Your task to perform on an android device: star an email in the gmail app Image 0: 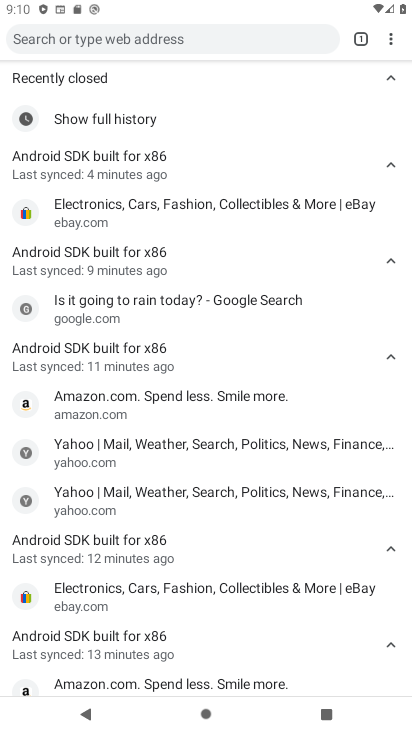
Step 0: press home button
Your task to perform on an android device: star an email in the gmail app Image 1: 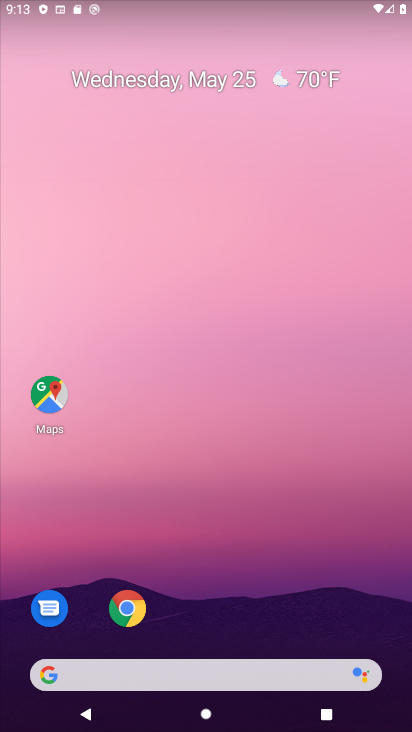
Step 1: drag from (273, 316) to (219, 30)
Your task to perform on an android device: star an email in the gmail app Image 2: 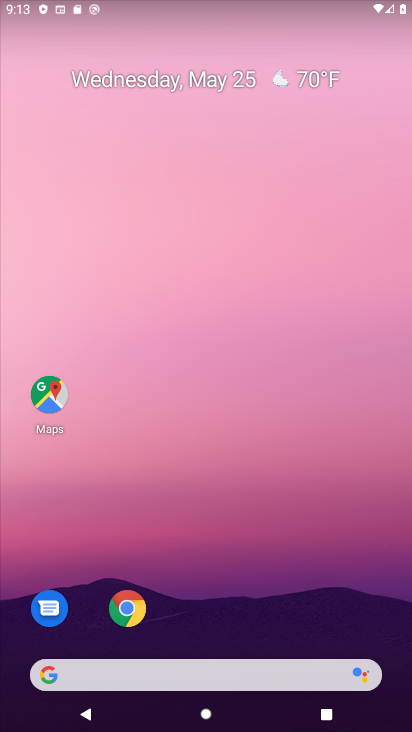
Step 2: drag from (303, 588) to (175, 1)
Your task to perform on an android device: star an email in the gmail app Image 3: 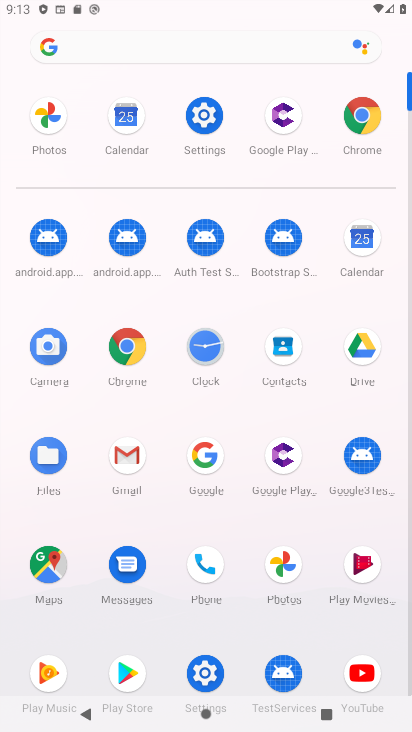
Step 3: click (124, 485)
Your task to perform on an android device: star an email in the gmail app Image 4: 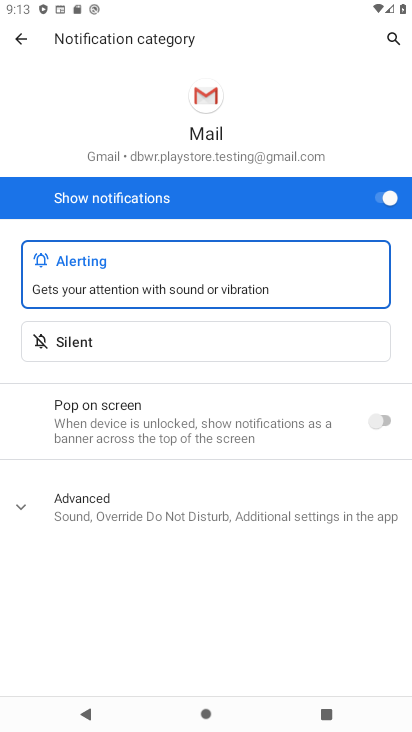
Step 4: drag from (267, 602) to (267, 237)
Your task to perform on an android device: star an email in the gmail app Image 5: 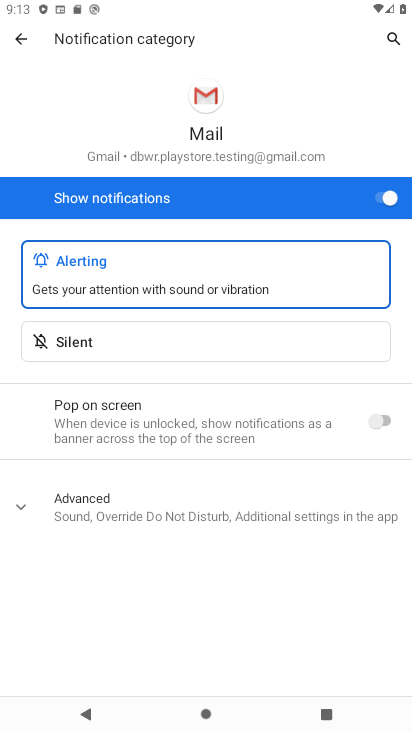
Step 5: click (18, 42)
Your task to perform on an android device: star an email in the gmail app Image 6: 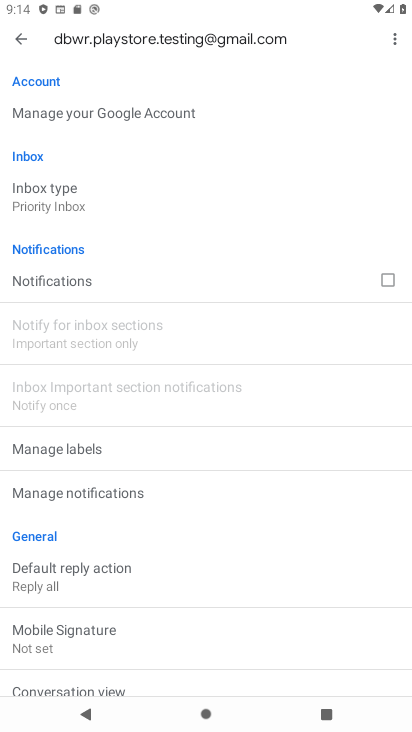
Step 6: click (19, 30)
Your task to perform on an android device: star an email in the gmail app Image 7: 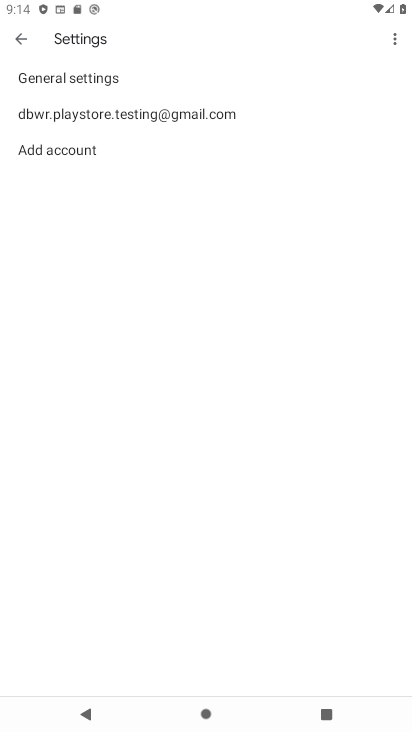
Step 7: click (22, 38)
Your task to perform on an android device: star an email in the gmail app Image 8: 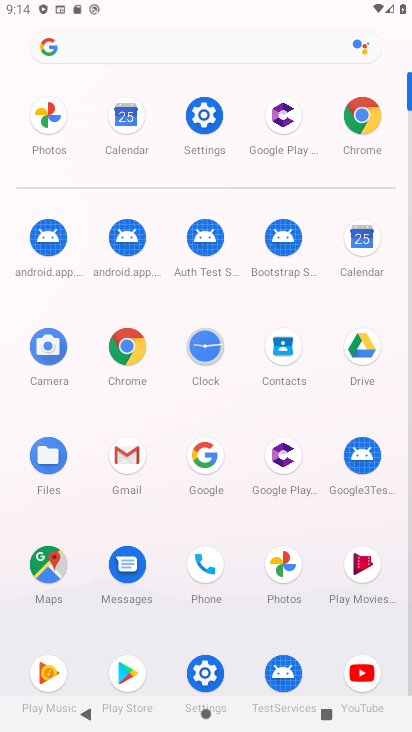
Step 8: click (122, 455)
Your task to perform on an android device: star an email in the gmail app Image 9: 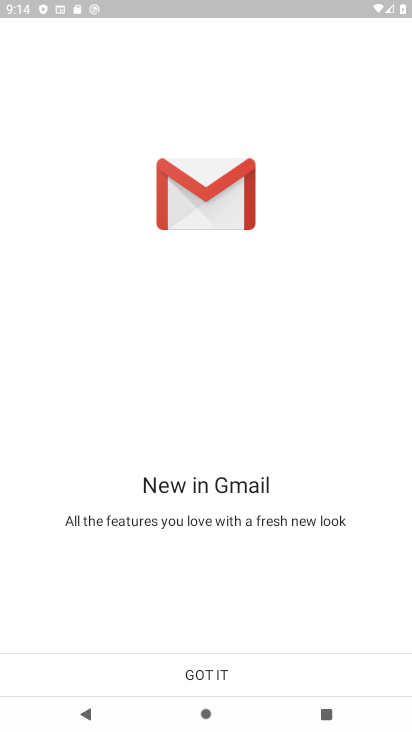
Step 9: click (230, 669)
Your task to perform on an android device: star an email in the gmail app Image 10: 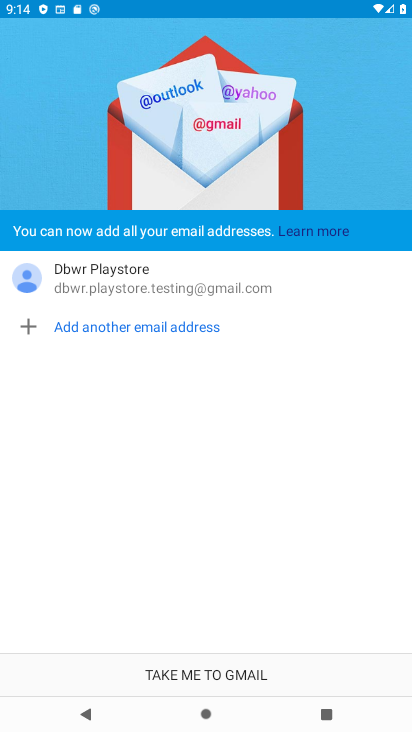
Step 10: click (237, 667)
Your task to perform on an android device: star an email in the gmail app Image 11: 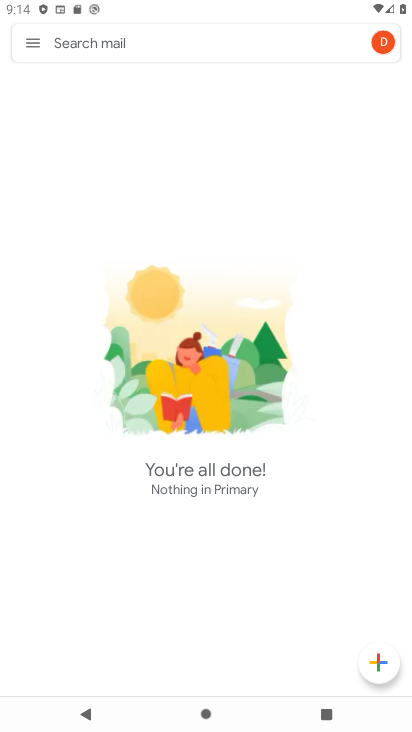
Step 11: click (37, 46)
Your task to perform on an android device: star an email in the gmail app Image 12: 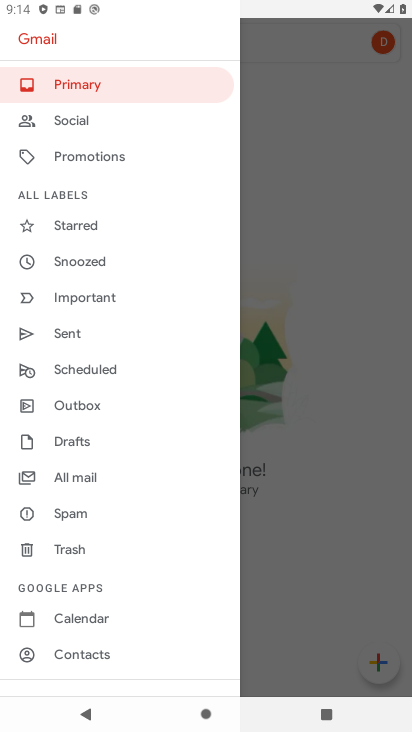
Step 12: click (93, 479)
Your task to perform on an android device: star an email in the gmail app Image 13: 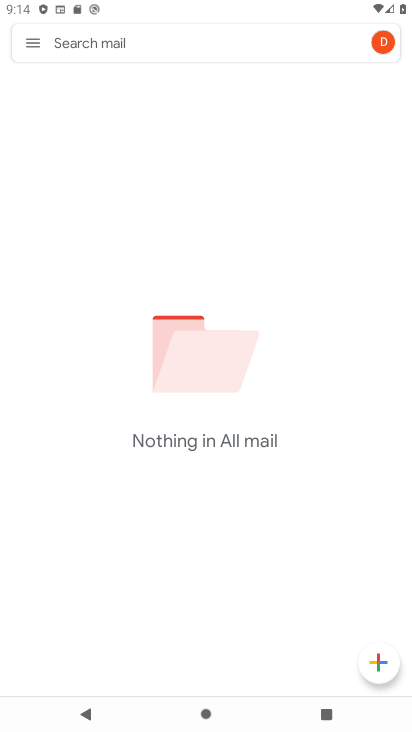
Step 13: task complete